Your task to perform on an android device: Search for the best rated headphones on amazon.com Image 0: 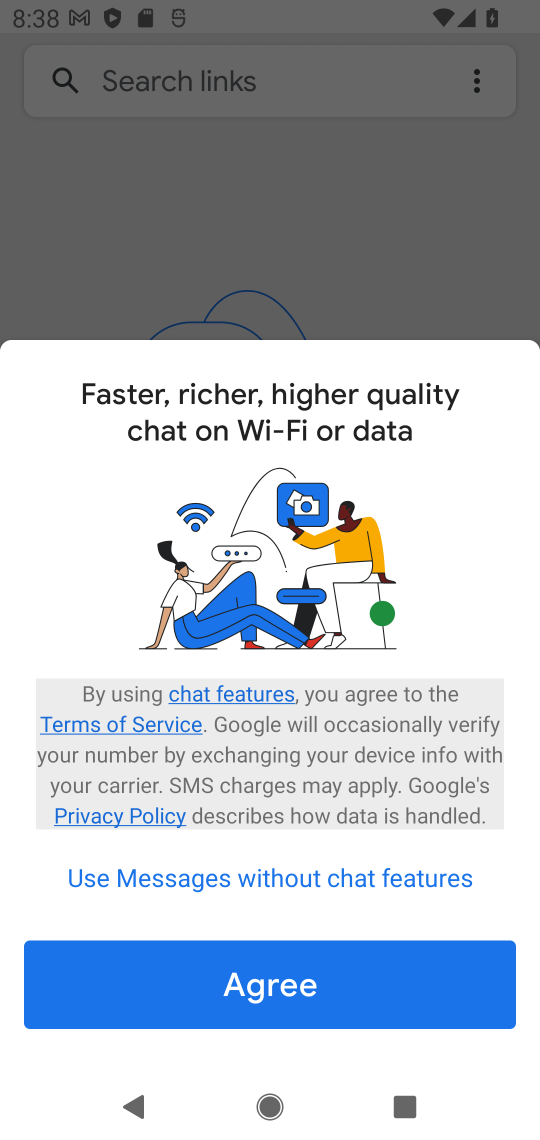
Step 0: press home button
Your task to perform on an android device: Search for the best rated headphones on amazon.com Image 1: 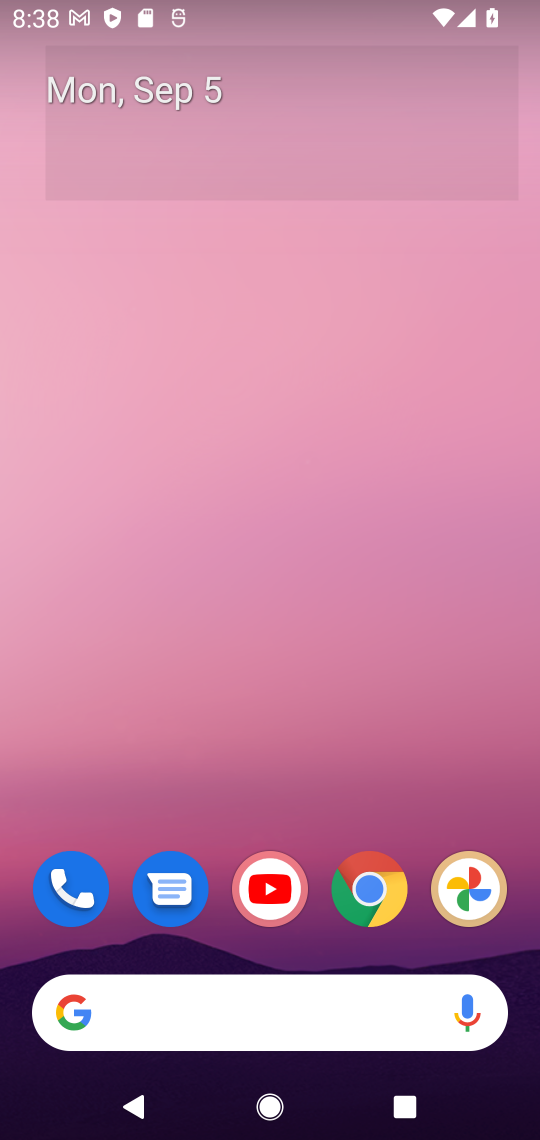
Step 1: click (251, 1024)
Your task to perform on an android device: Search for the best rated headphones on amazon.com Image 2: 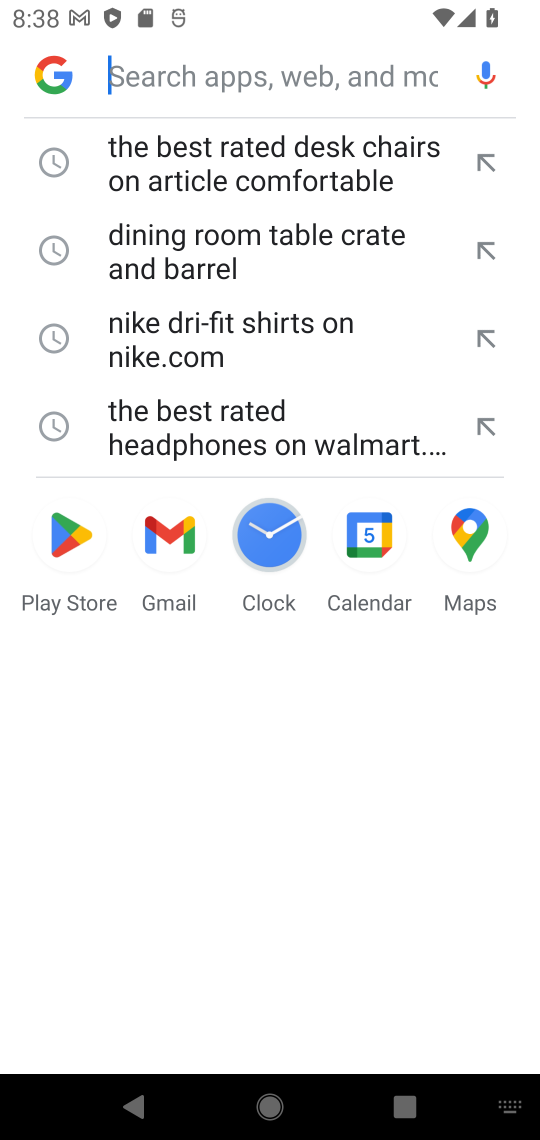
Step 2: type "the best rated headphones on amazon.com"
Your task to perform on an android device: Search for the best rated headphones on amazon.com Image 3: 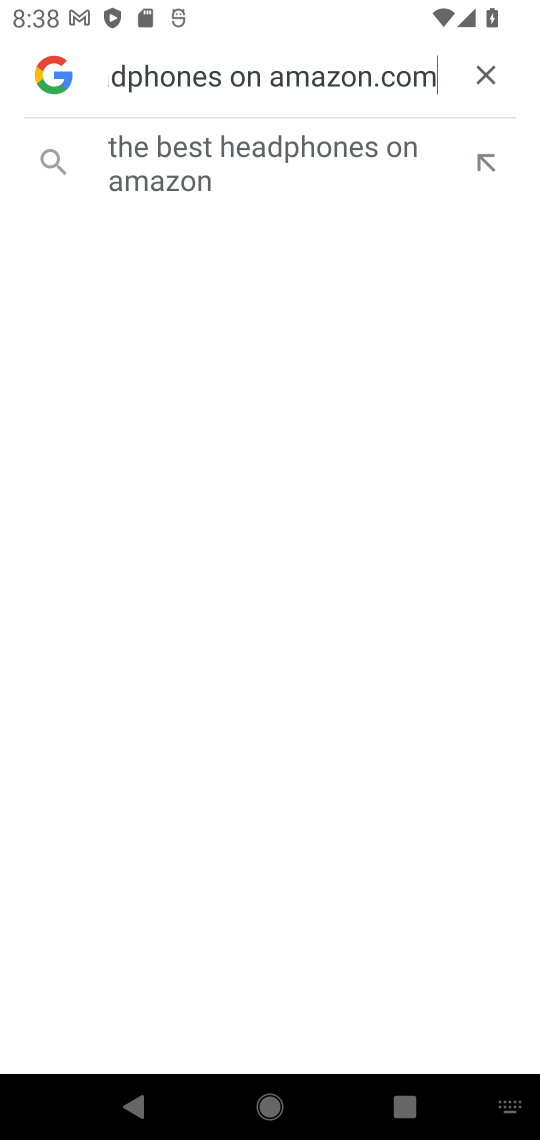
Step 3: click (189, 142)
Your task to perform on an android device: Search for the best rated headphones on amazon.com Image 4: 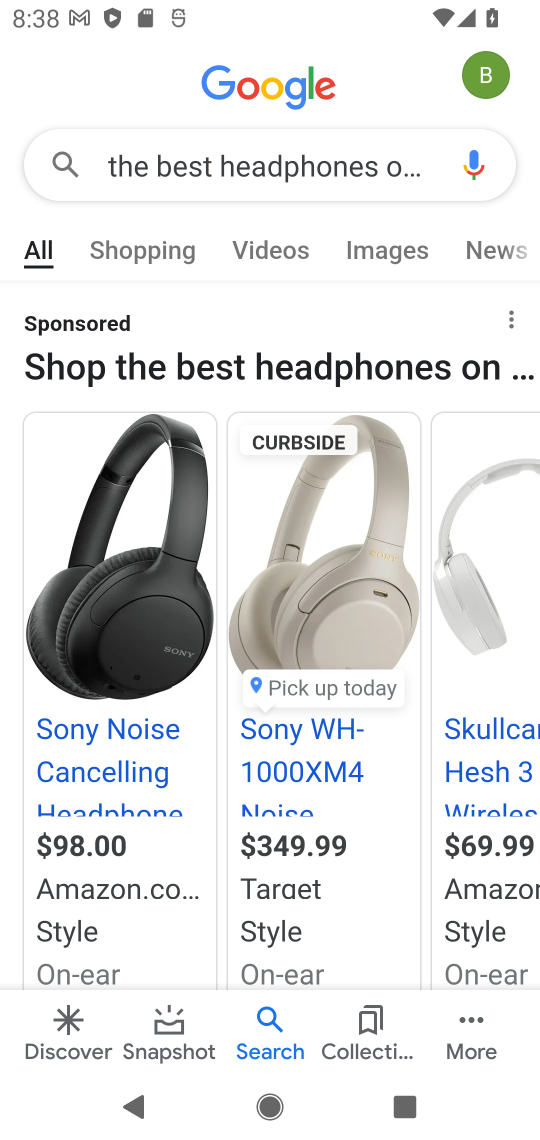
Step 4: task complete